Your task to perform on an android device: move an email to a new category in the gmail app Image 0: 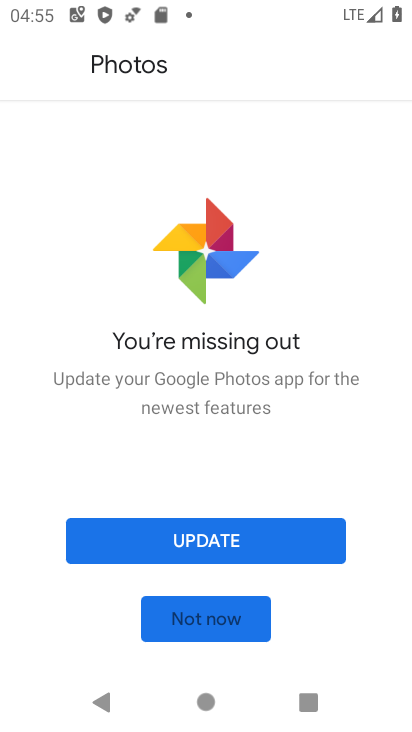
Step 0: press home button
Your task to perform on an android device: move an email to a new category in the gmail app Image 1: 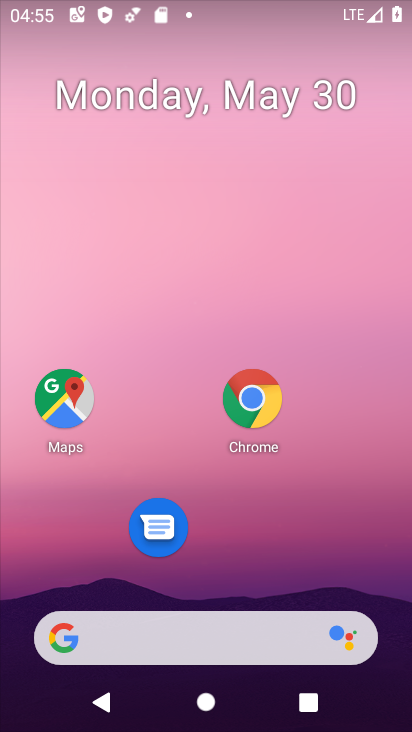
Step 1: drag from (232, 726) to (211, 35)
Your task to perform on an android device: move an email to a new category in the gmail app Image 2: 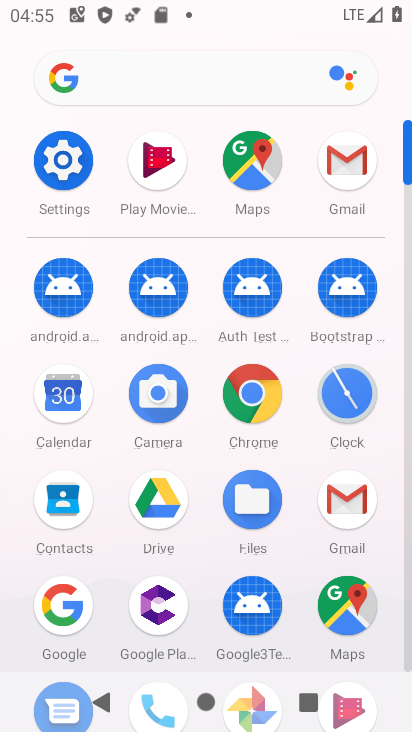
Step 2: click (345, 499)
Your task to perform on an android device: move an email to a new category in the gmail app Image 3: 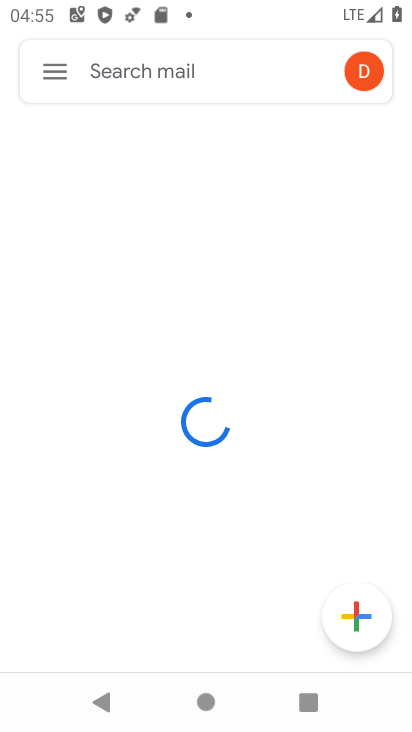
Step 3: task complete